Your task to perform on an android device: toggle data saver in the chrome app Image 0: 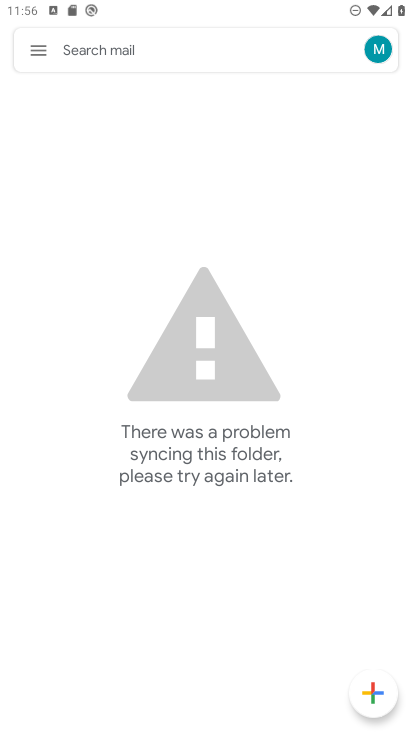
Step 0: press home button
Your task to perform on an android device: toggle data saver in the chrome app Image 1: 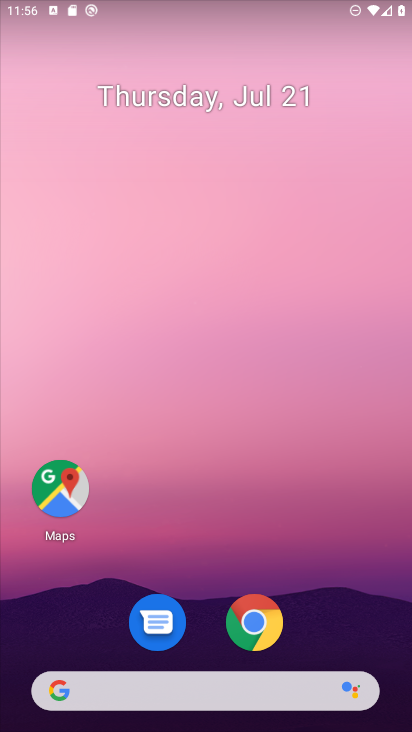
Step 1: click (256, 625)
Your task to perform on an android device: toggle data saver in the chrome app Image 2: 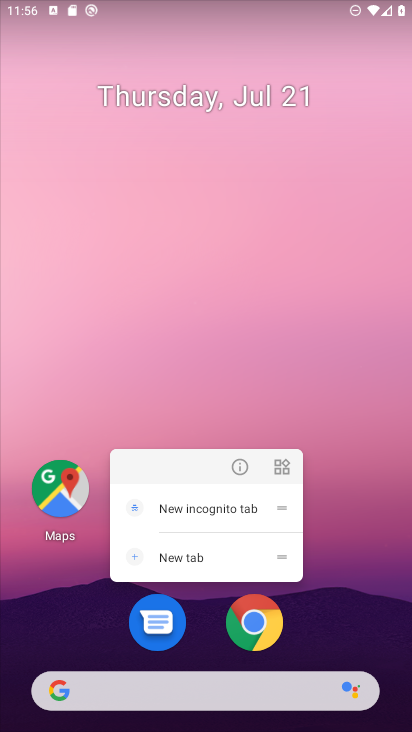
Step 2: click (256, 625)
Your task to perform on an android device: toggle data saver in the chrome app Image 3: 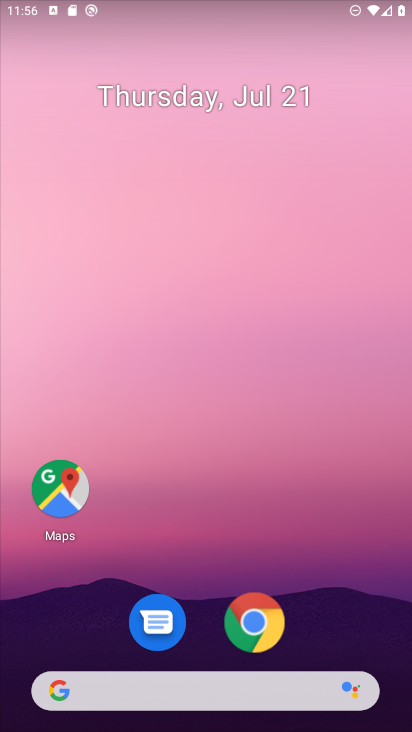
Step 3: click (256, 625)
Your task to perform on an android device: toggle data saver in the chrome app Image 4: 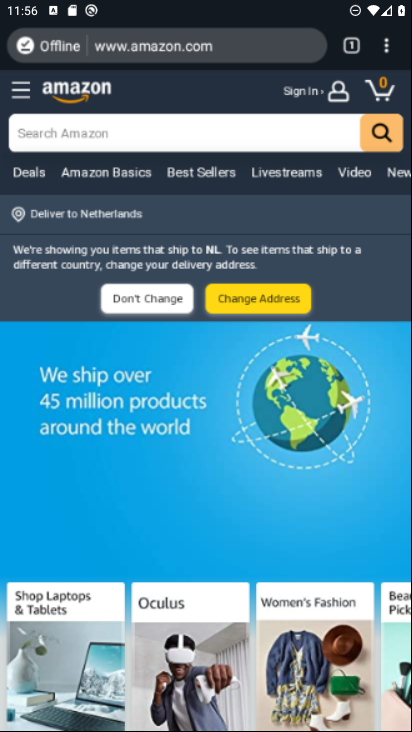
Step 4: click (256, 625)
Your task to perform on an android device: toggle data saver in the chrome app Image 5: 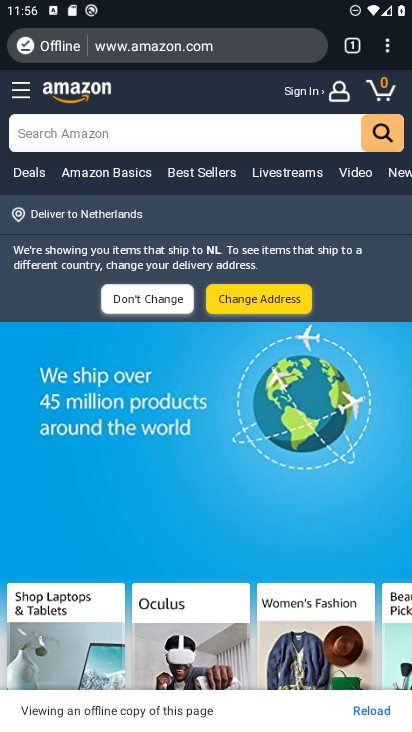
Step 5: click (384, 43)
Your task to perform on an android device: toggle data saver in the chrome app Image 6: 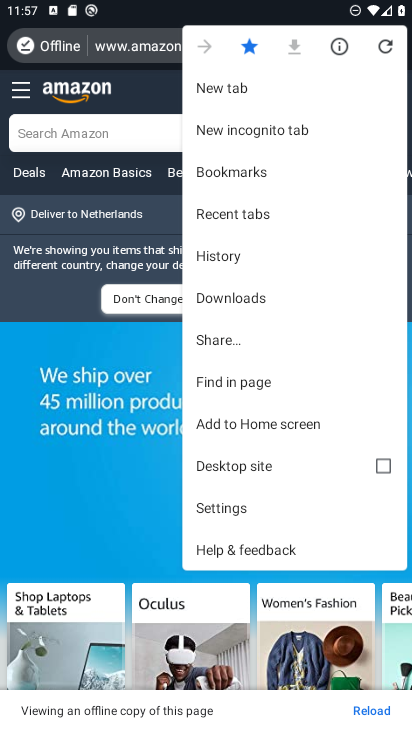
Step 6: click (251, 504)
Your task to perform on an android device: toggle data saver in the chrome app Image 7: 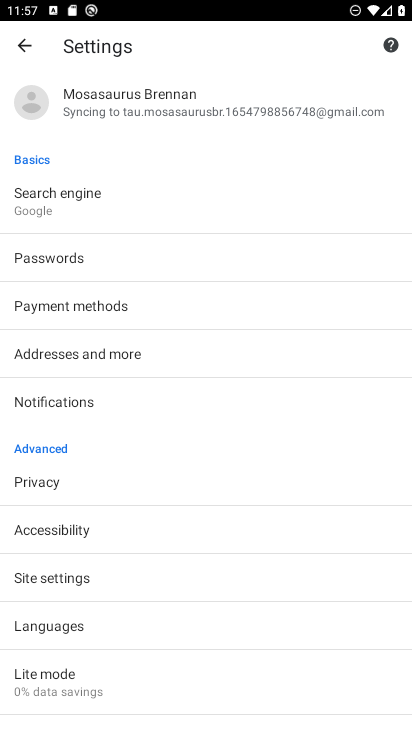
Step 7: click (85, 675)
Your task to perform on an android device: toggle data saver in the chrome app Image 8: 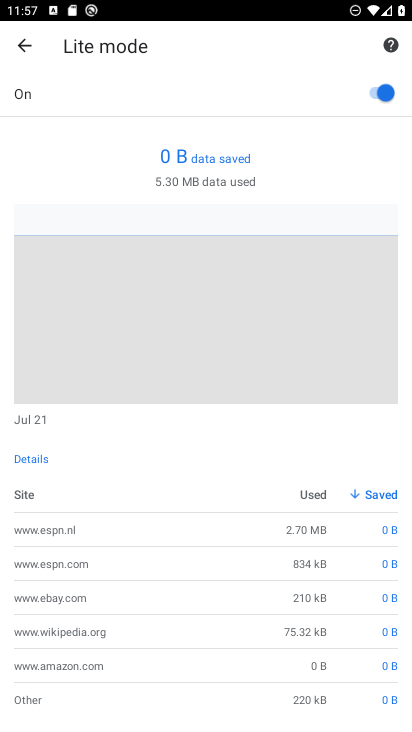
Step 8: click (386, 81)
Your task to perform on an android device: toggle data saver in the chrome app Image 9: 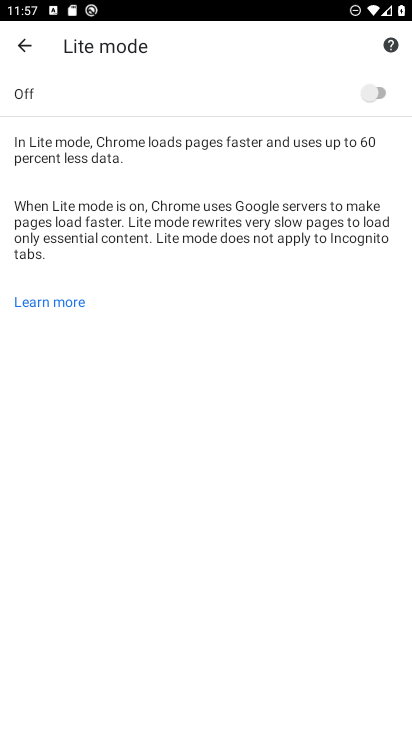
Step 9: task complete